Your task to perform on an android device: turn pop-ups off in chrome Image 0: 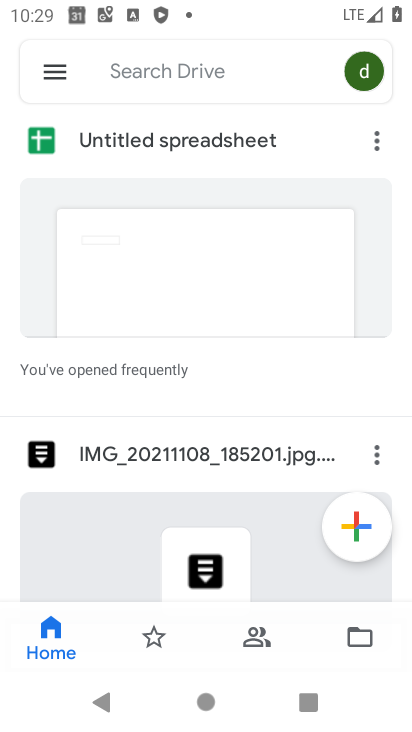
Step 0: press home button
Your task to perform on an android device: turn pop-ups off in chrome Image 1: 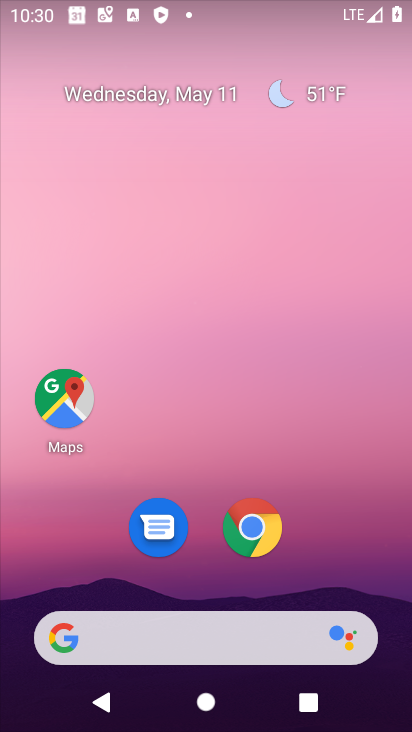
Step 1: drag from (395, 251) to (388, 193)
Your task to perform on an android device: turn pop-ups off in chrome Image 2: 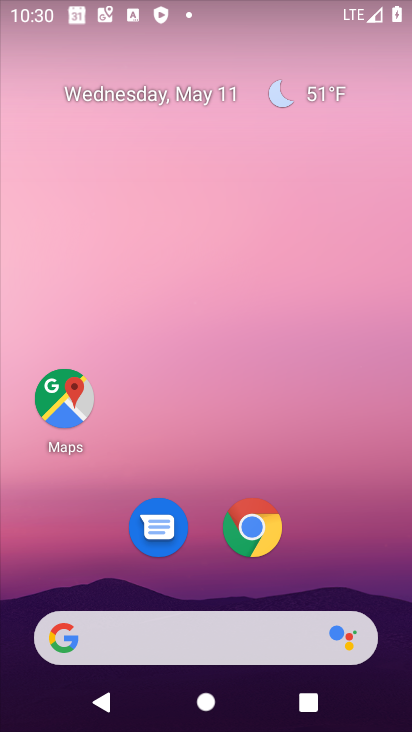
Step 2: click (276, 516)
Your task to perform on an android device: turn pop-ups off in chrome Image 3: 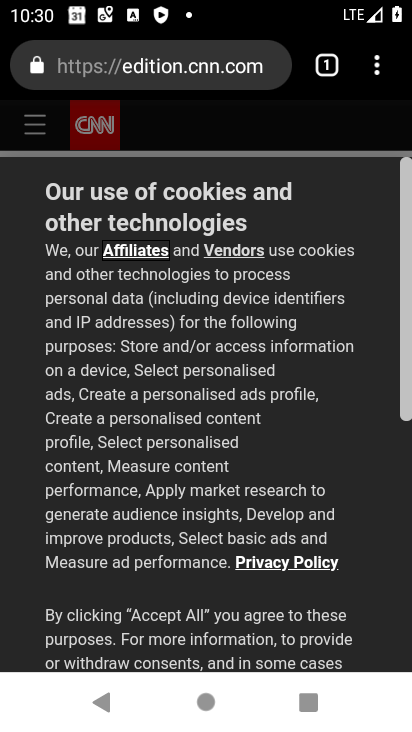
Step 3: drag from (383, 74) to (181, 589)
Your task to perform on an android device: turn pop-ups off in chrome Image 4: 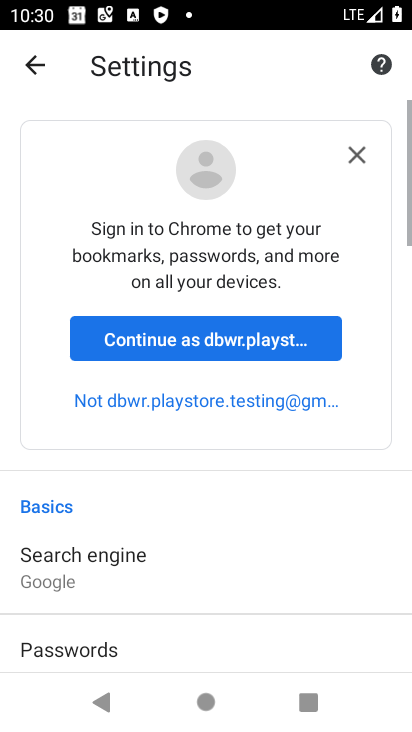
Step 4: drag from (223, 631) to (304, 133)
Your task to perform on an android device: turn pop-ups off in chrome Image 5: 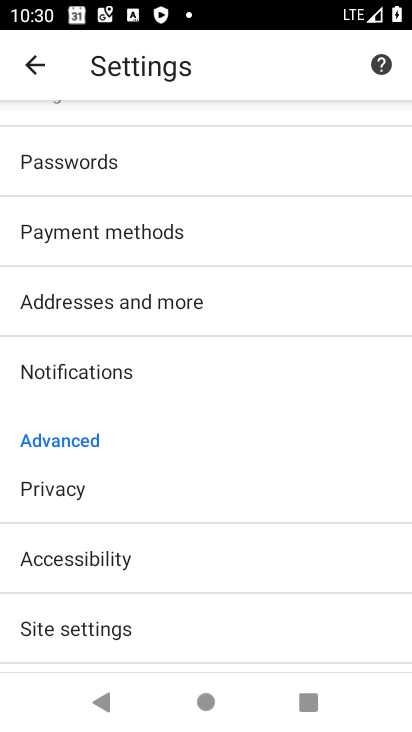
Step 5: drag from (251, 613) to (334, 127)
Your task to perform on an android device: turn pop-ups off in chrome Image 6: 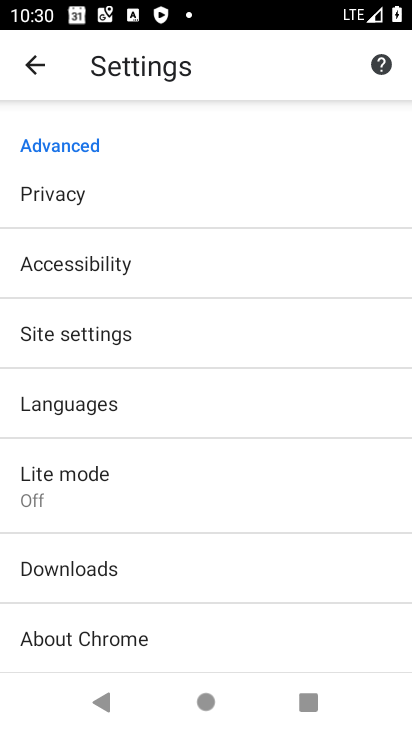
Step 6: click (123, 345)
Your task to perform on an android device: turn pop-ups off in chrome Image 7: 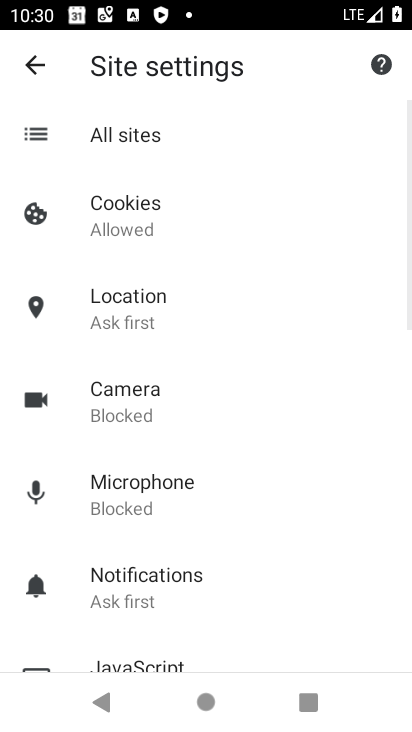
Step 7: drag from (151, 555) to (242, 160)
Your task to perform on an android device: turn pop-ups off in chrome Image 8: 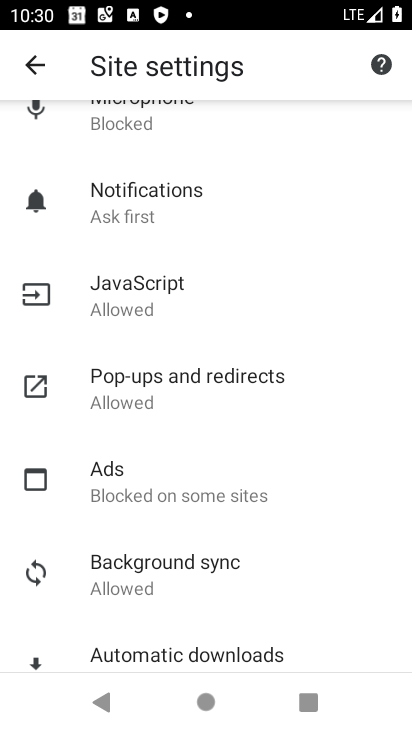
Step 8: click (160, 408)
Your task to perform on an android device: turn pop-ups off in chrome Image 9: 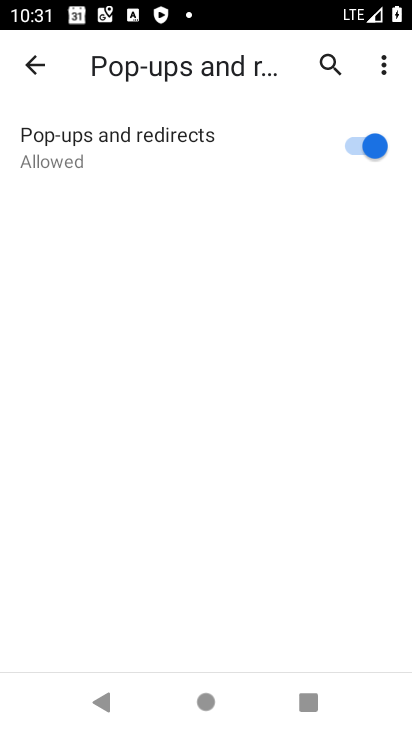
Step 9: click (365, 143)
Your task to perform on an android device: turn pop-ups off in chrome Image 10: 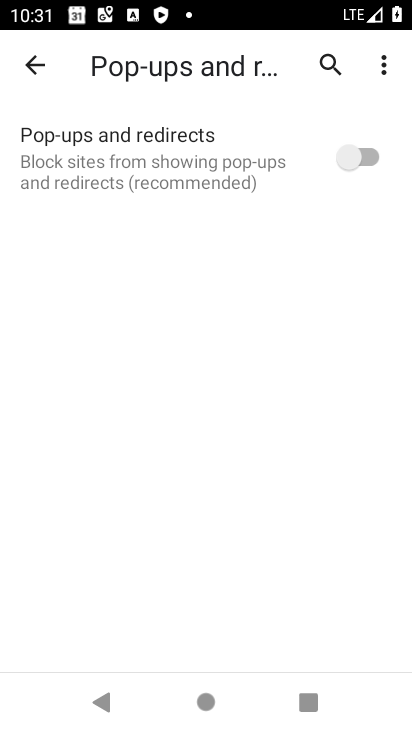
Step 10: task complete